Your task to perform on an android device: toggle data saver in the chrome app Image 0: 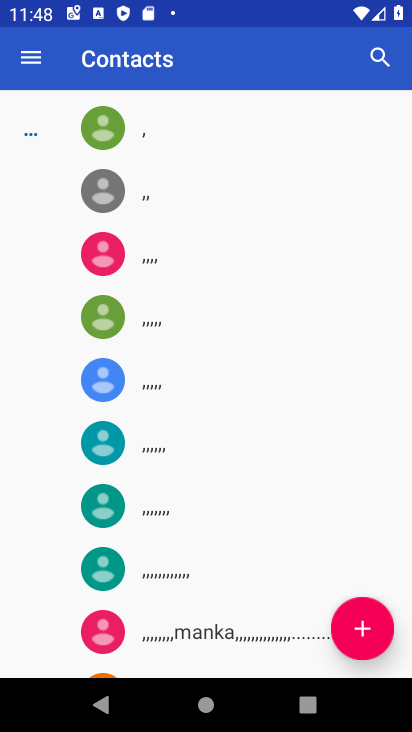
Step 0: press home button
Your task to perform on an android device: toggle data saver in the chrome app Image 1: 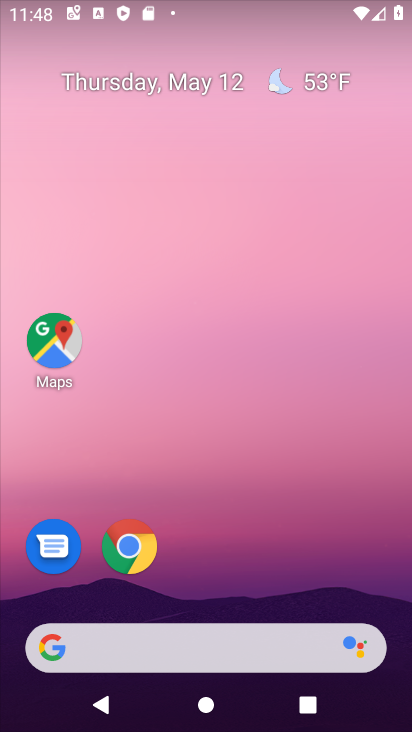
Step 1: drag from (168, 678) to (142, 297)
Your task to perform on an android device: toggle data saver in the chrome app Image 2: 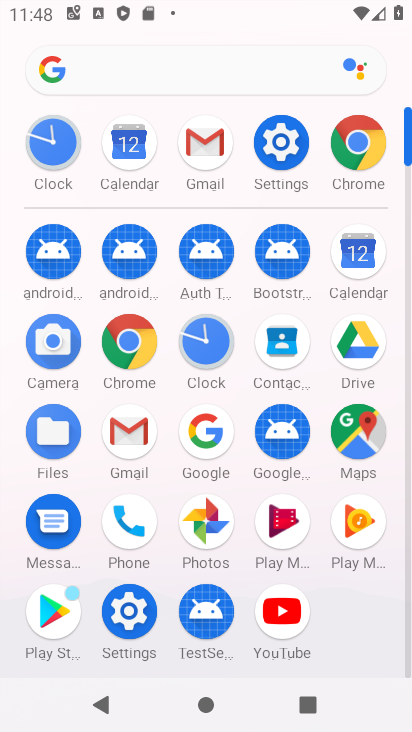
Step 2: click (292, 159)
Your task to perform on an android device: toggle data saver in the chrome app Image 3: 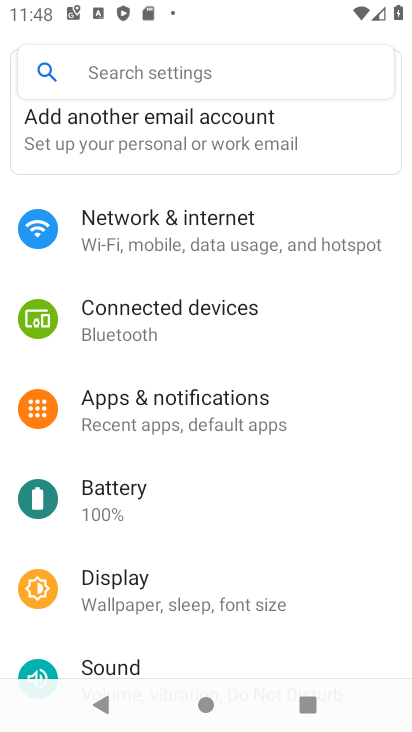
Step 3: press home button
Your task to perform on an android device: toggle data saver in the chrome app Image 4: 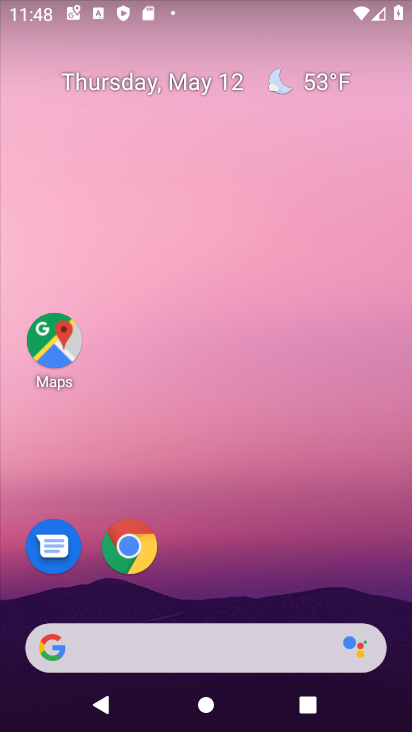
Step 4: click (145, 532)
Your task to perform on an android device: toggle data saver in the chrome app Image 5: 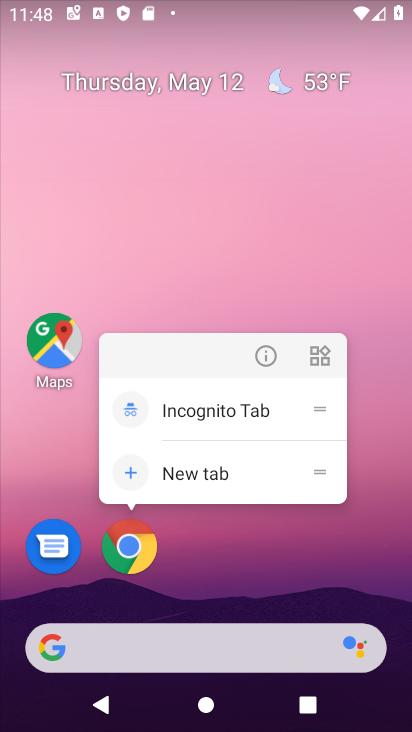
Step 5: click (133, 562)
Your task to perform on an android device: toggle data saver in the chrome app Image 6: 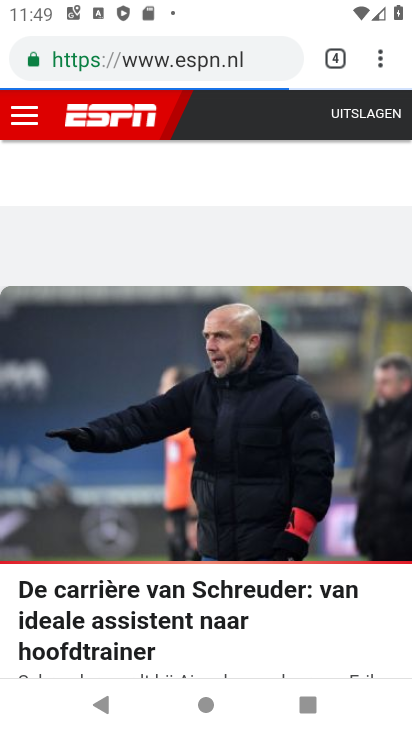
Step 6: click (376, 69)
Your task to perform on an android device: toggle data saver in the chrome app Image 7: 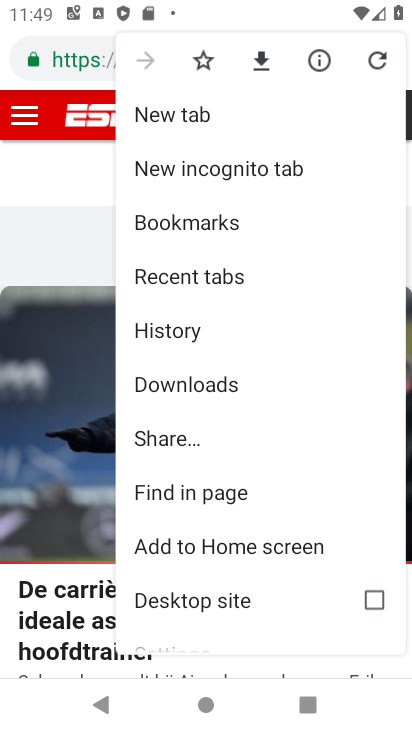
Step 7: drag from (184, 544) to (291, 311)
Your task to perform on an android device: toggle data saver in the chrome app Image 8: 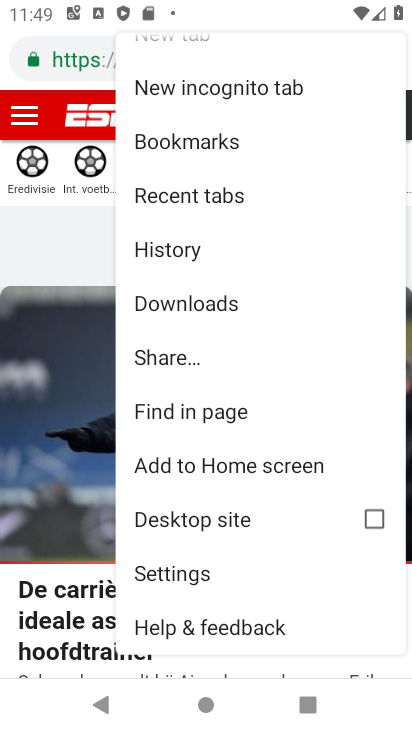
Step 8: click (164, 568)
Your task to perform on an android device: toggle data saver in the chrome app Image 9: 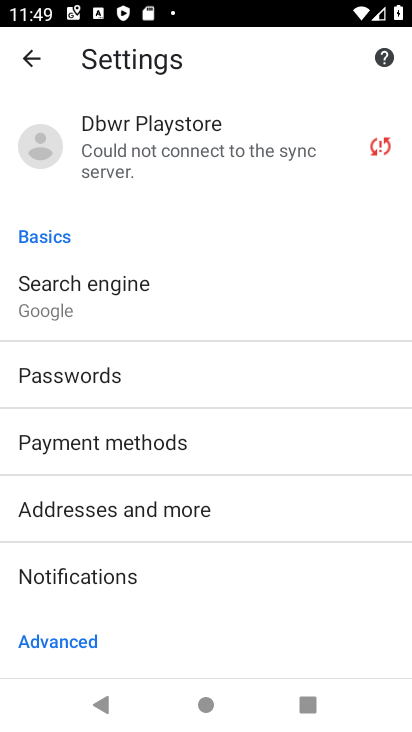
Step 9: drag from (148, 606) to (155, 404)
Your task to perform on an android device: toggle data saver in the chrome app Image 10: 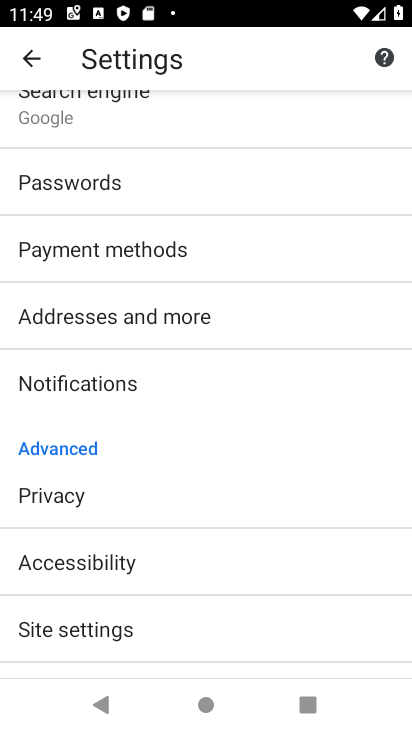
Step 10: drag from (120, 619) to (151, 451)
Your task to perform on an android device: toggle data saver in the chrome app Image 11: 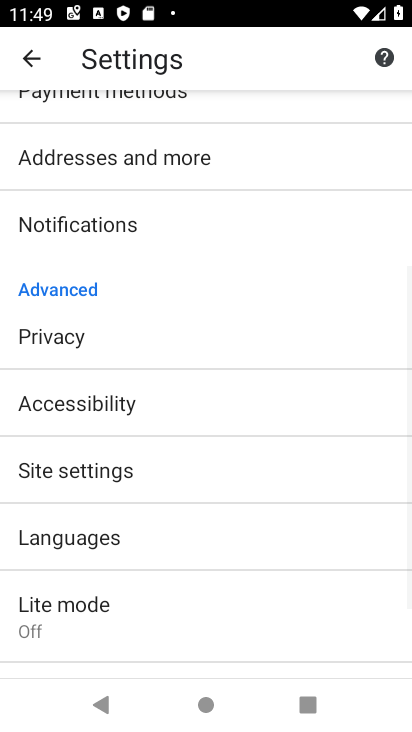
Step 11: click (99, 612)
Your task to perform on an android device: toggle data saver in the chrome app Image 12: 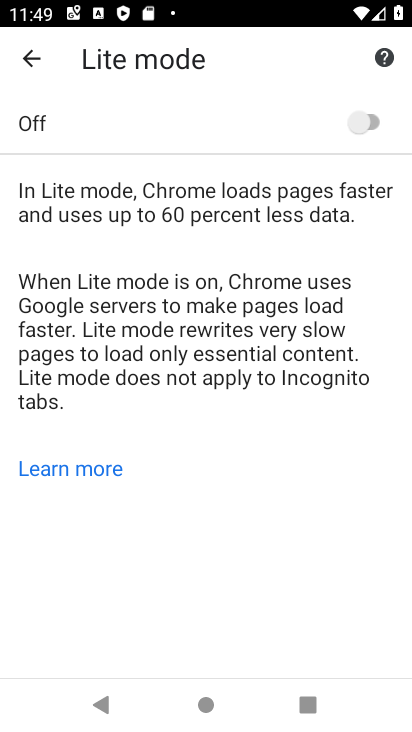
Step 12: task complete